Your task to perform on an android device: move a message to another label in the gmail app Image 0: 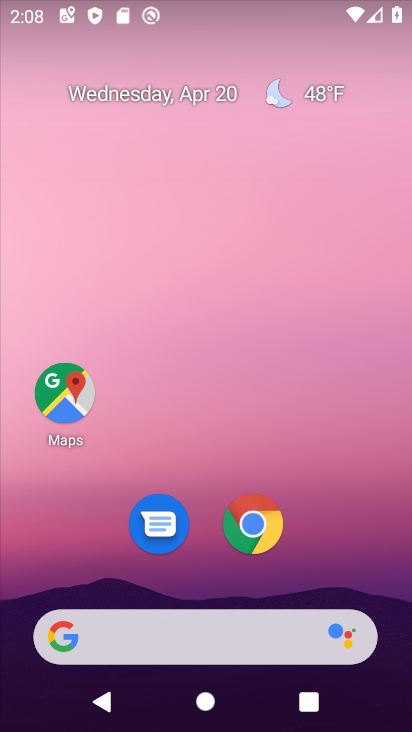
Step 0: drag from (358, 502) to (328, 49)
Your task to perform on an android device: move a message to another label in the gmail app Image 1: 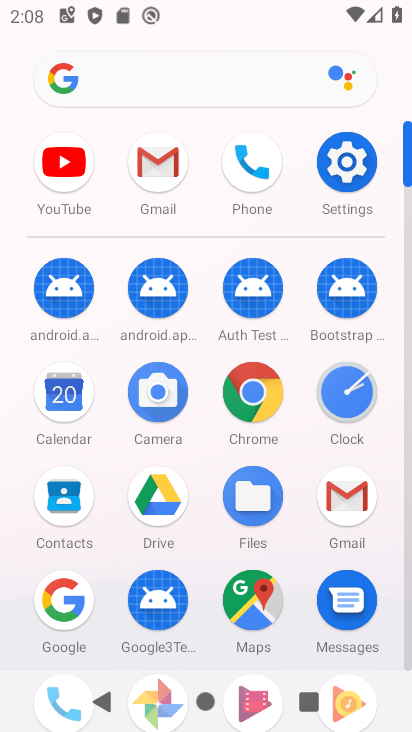
Step 1: click (168, 163)
Your task to perform on an android device: move a message to another label in the gmail app Image 2: 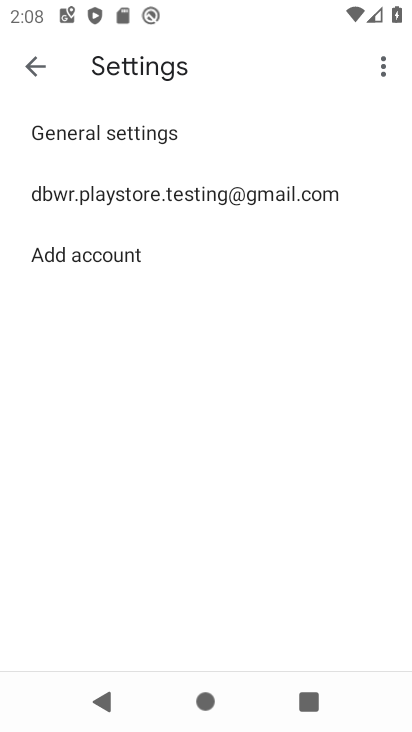
Step 2: click (40, 59)
Your task to perform on an android device: move a message to another label in the gmail app Image 3: 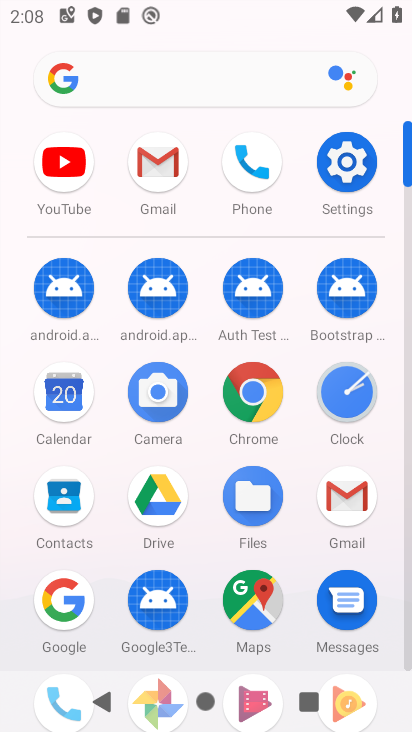
Step 3: click (143, 150)
Your task to perform on an android device: move a message to another label in the gmail app Image 4: 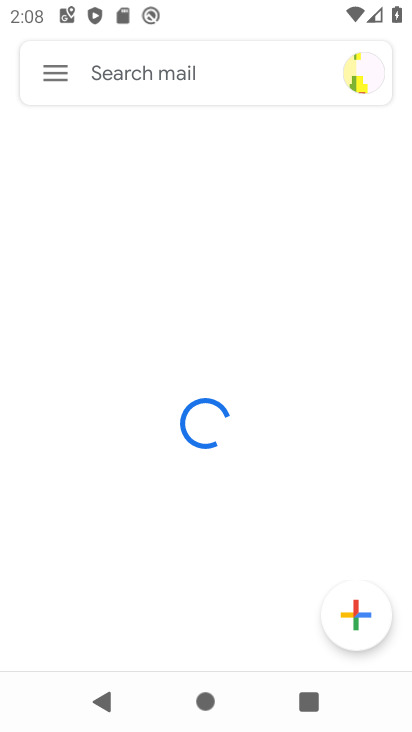
Step 4: click (58, 72)
Your task to perform on an android device: move a message to another label in the gmail app Image 5: 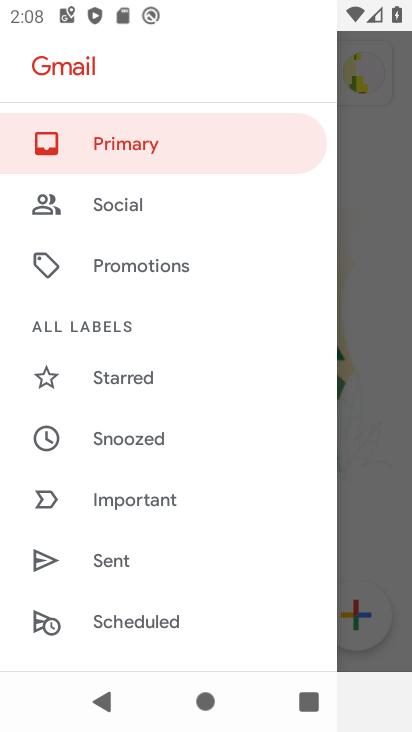
Step 5: drag from (160, 548) to (259, 395)
Your task to perform on an android device: move a message to another label in the gmail app Image 6: 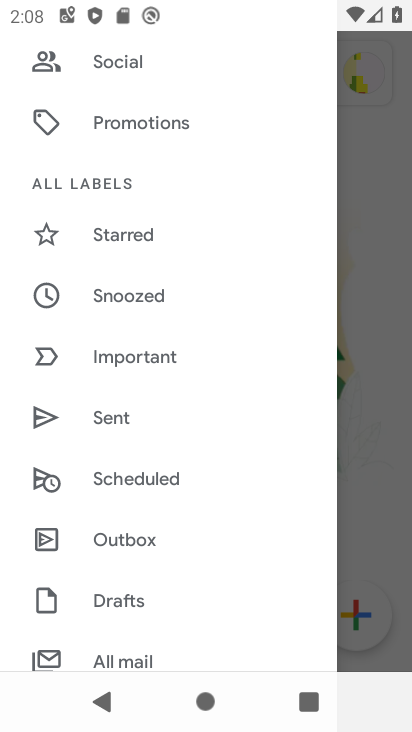
Step 6: drag from (170, 574) to (203, 126)
Your task to perform on an android device: move a message to another label in the gmail app Image 7: 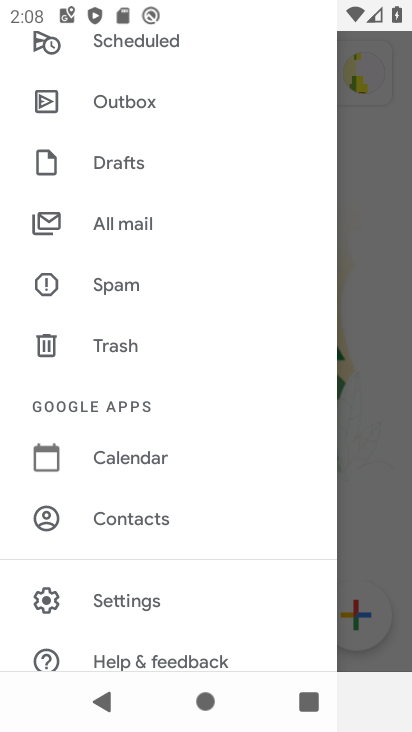
Step 7: click (128, 206)
Your task to perform on an android device: move a message to another label in the gmail app Image 8: 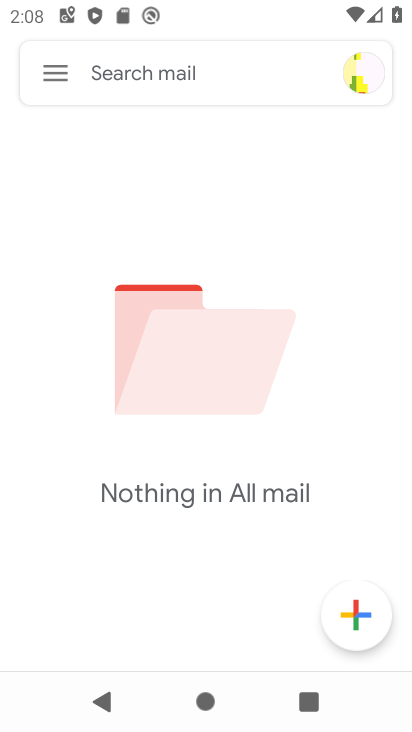
Step 8: task complete